Your task to perform on an android device: turn on the 12-hour format for clock Image 0: 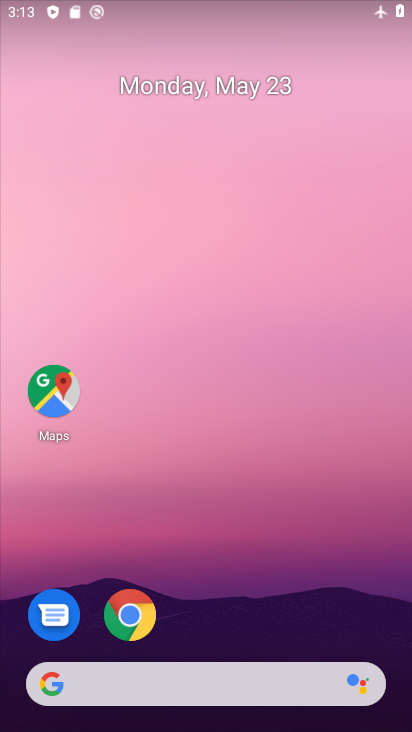
Step 0: drag from (252, 559) to (261, 212)
Your task to perform on an android device: turn on the 12-hour format for clock Image 1: 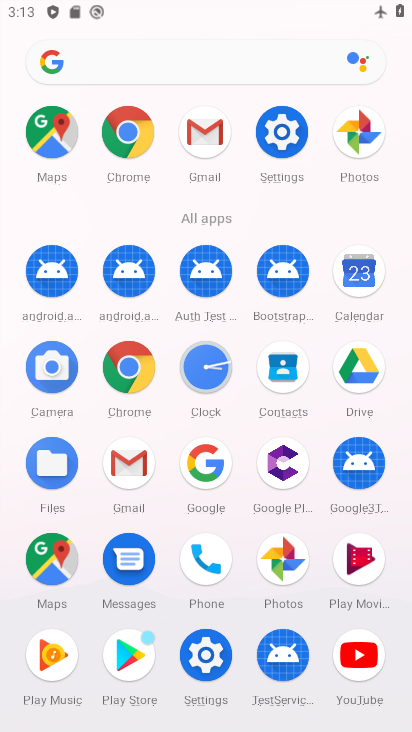
Step 1: click (205, 356)
Your task to perform on an android device: turn on the 12-hour format for clock Image 2: 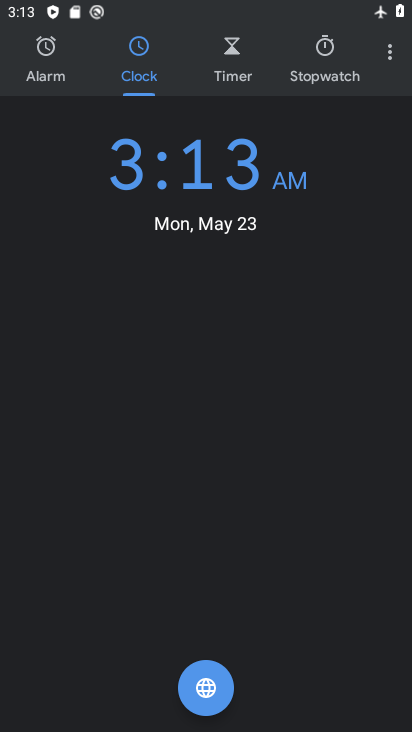
Step 2: click (385, 45)
Your task to perform on an android device: turn on the 12-hour format for clock Image 3: 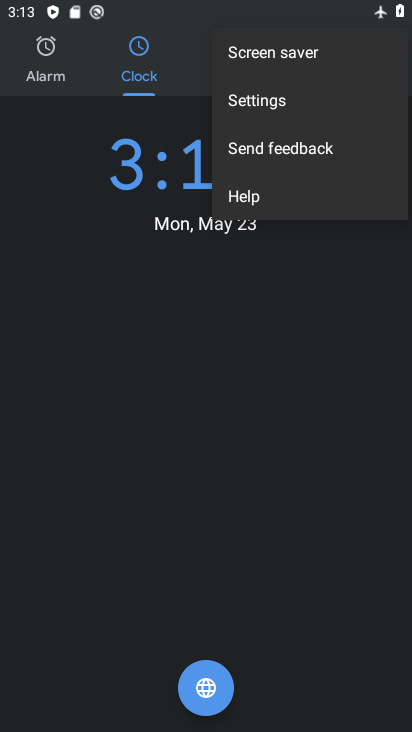
Step 3: click (292, 107)
Your task to perform on an android device: turn on the 12-hour format for clock Image 4: 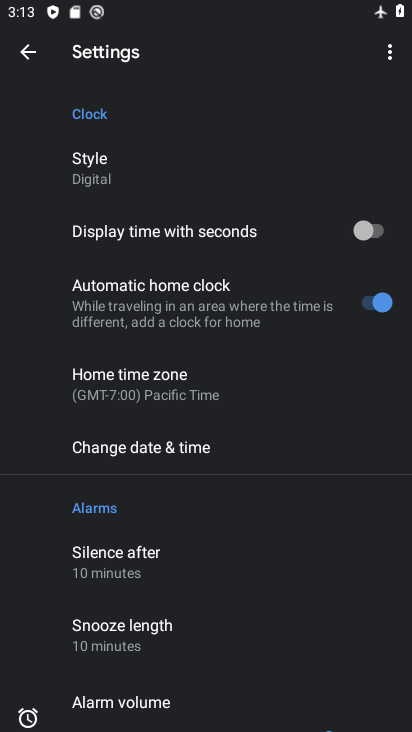
Step 4: click (201, 443)
Your task to perform on an android device: turn on the 12-hour format for clock Image 5: 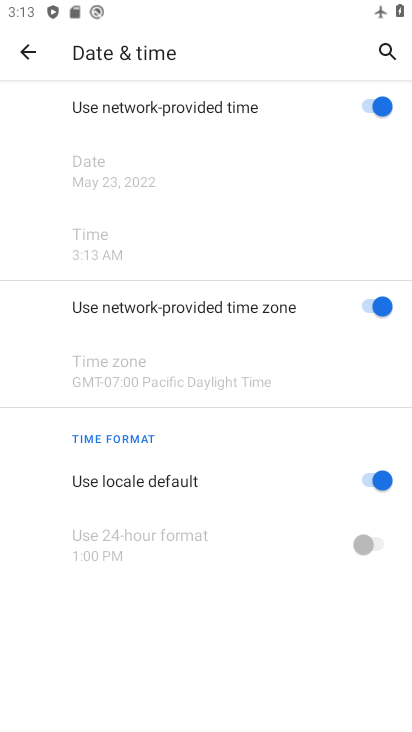
Step 5: click (371, 485)
Your task to perform on an android device: turn on the 12-hour format for clock Image 6: 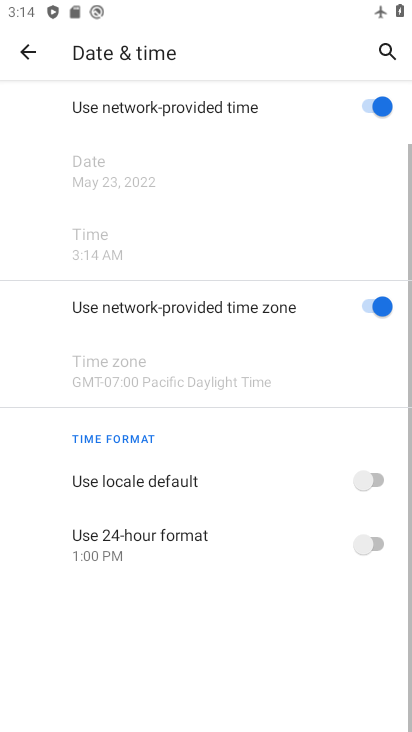
Step 6: click (369, 553)
Your task to perform on an android device: turn on the 12-hour format for clock Image 7: 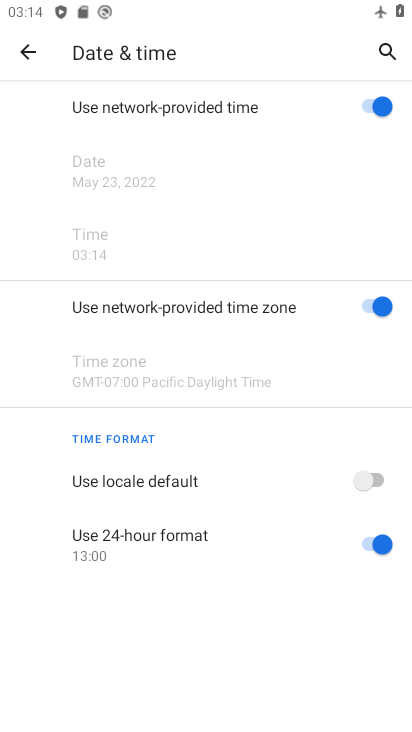
Step 7: task complete